Your task to perform on an android device: check battery use Image 0: 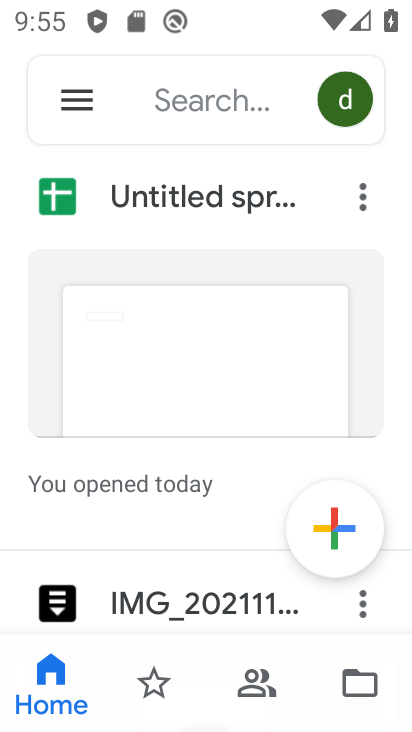
Step 0: press home button
Your task to perform on an android device: check battery use Image 1: 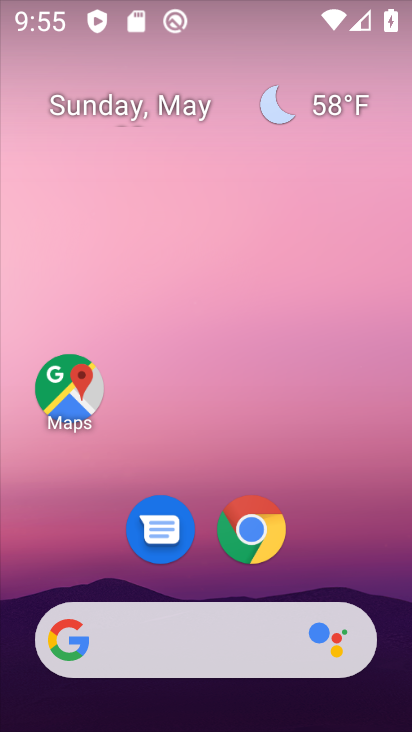
Step 1: drag from (196, 553) to (222, 3)
Your task to perform on an android device: check battery use Image 2: 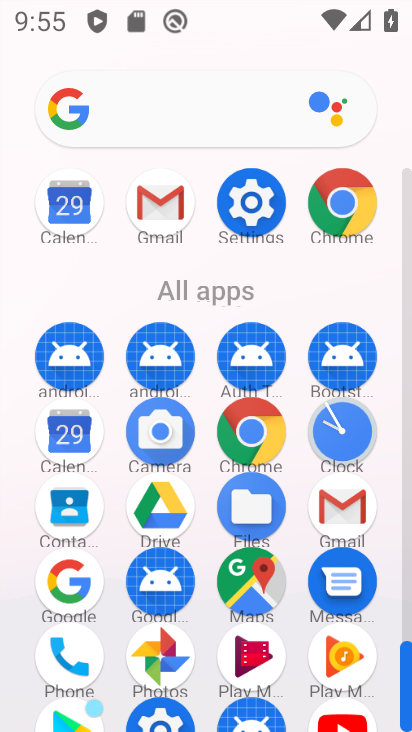
Step 2: click (248, 197)
Your task to perform on an android device: check battery use Image 3: 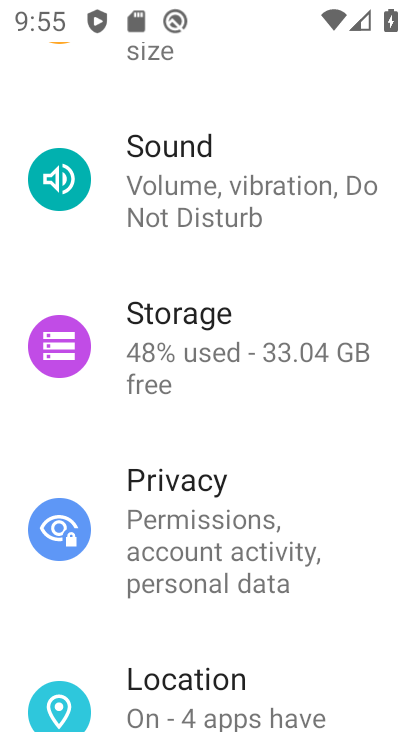
Step 3: drag from (192, 297) to (132, 612)
Your task to perform on an android device: check battery use Image 4: 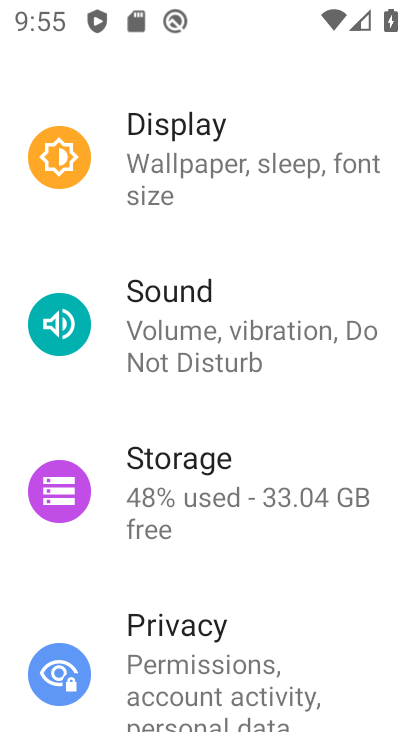
Step 4: drag from (268, 256) to (272, 672)
Your task to perform on an android device: check battery use Image 5: 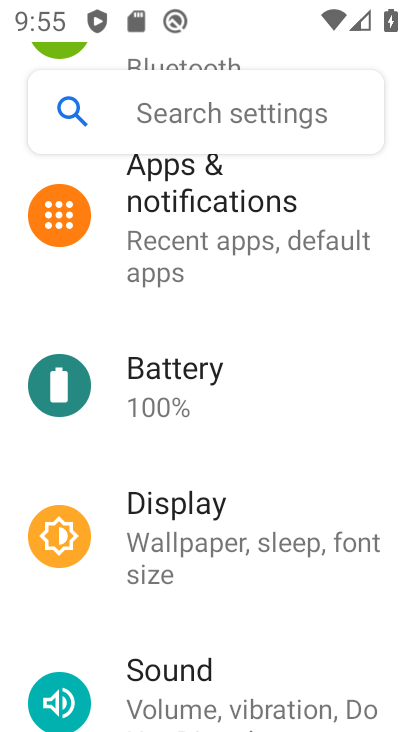
Step 5: click (213, 413)
Your task to perform on an android device: check battery use Image 6: 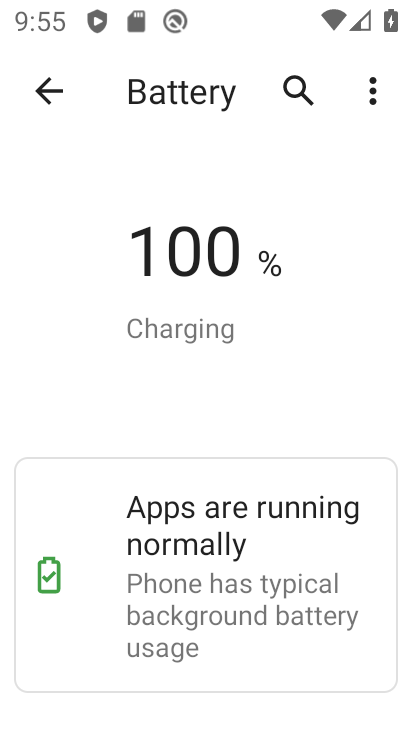
Step 6: task complete